Your task to perform on an android device: turn off notifications in google photos Image 0: 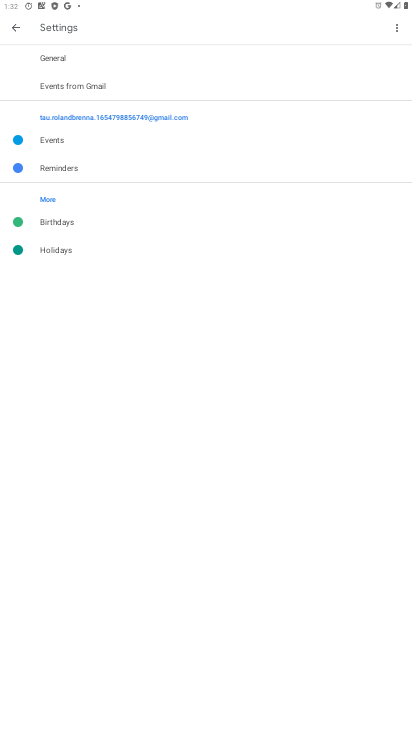
Step 0: press home button
Your task to perform on an android device: turn off notifications in google photos Image 1: 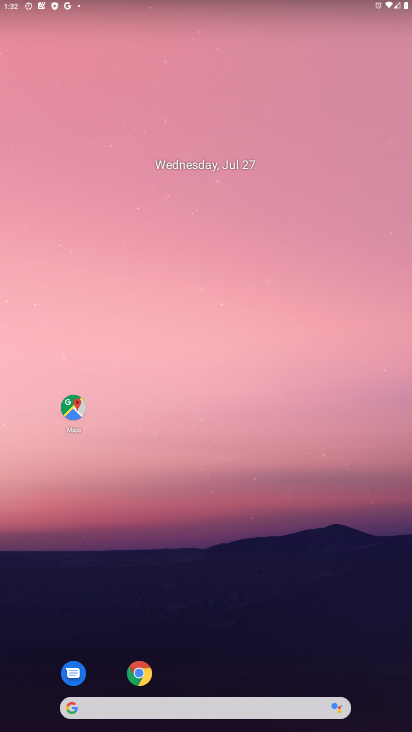
Step 1: drag from (225, 583) to (212, 3)
Your task to perform on an android device: turn off notifications in google photos Image 2: 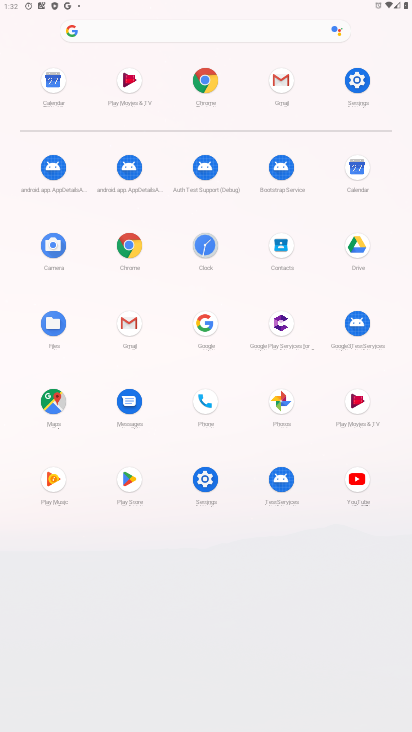
Step 2: click (278, 408)
Your task to perform on an android device: turn off notifications in google photos Image 3: 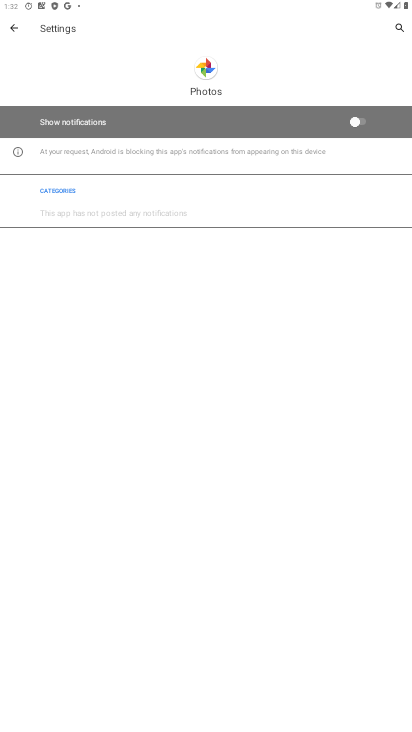
Step 3: task complete